Your task to perform on an android device: Open CNN.com Image 0: 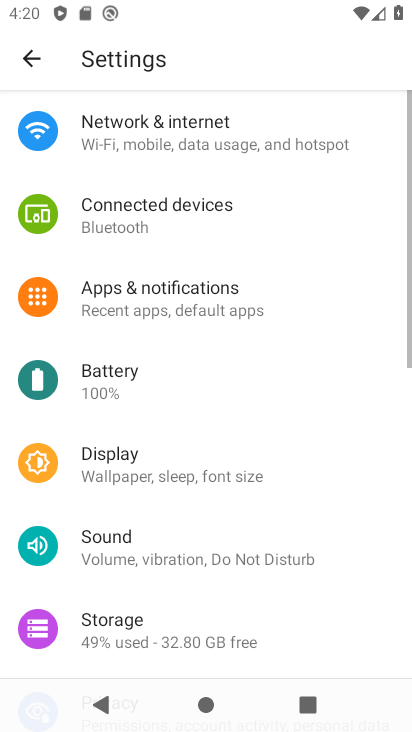
Step 0: press home button
Your task to perform on an android device: Open CNN.com Image 1: 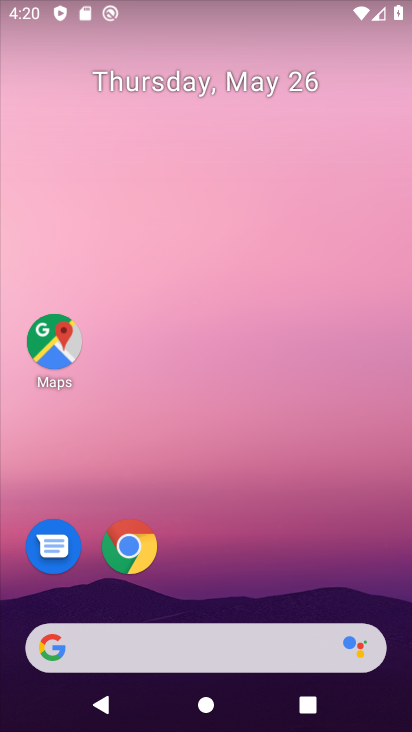
Step 1: click (139, 546)
Your task to perform on an android device: Open CNN.com Image 2: 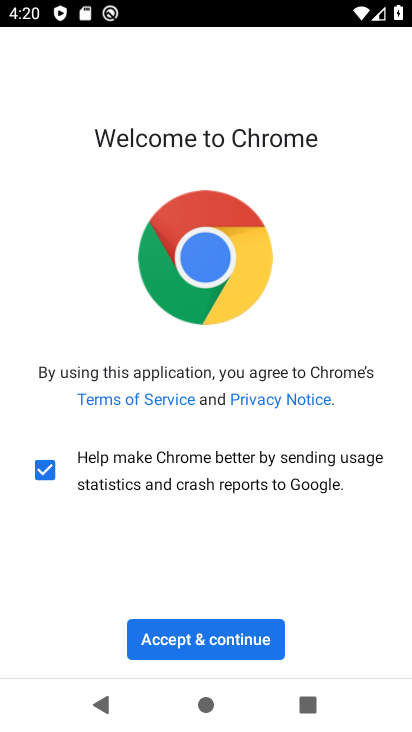
Step 2: click (236, 647)
Your task to perform on an android device: Open CNN.com Image 3: 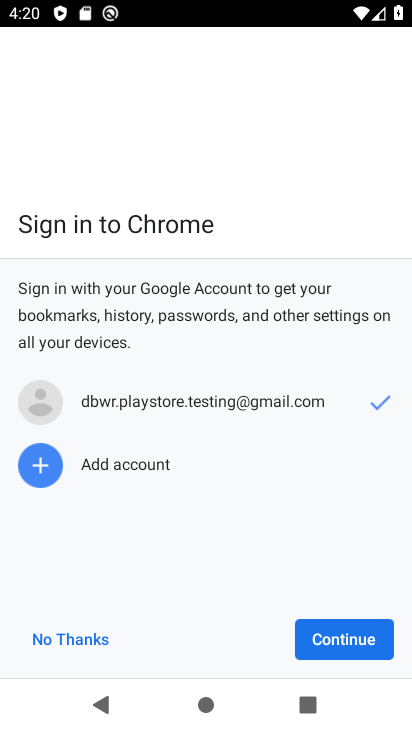
Step 3: click (325, 631)
Your task to perform on an android device: Open CNN.com Image 4: 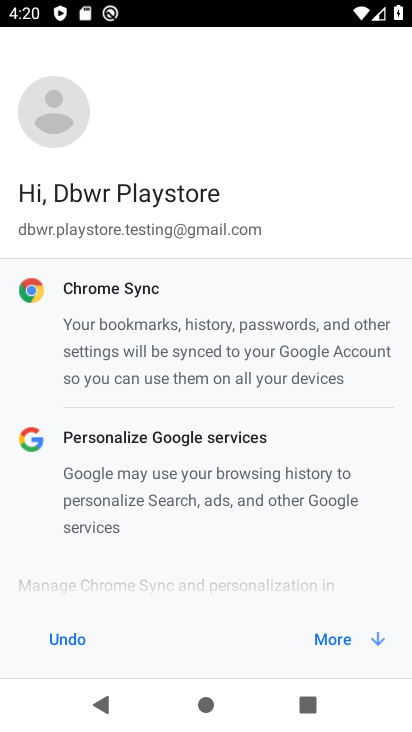
Step 4: click (352, 638)
Your task to perform on an android device: Open CNN.com Image 5: 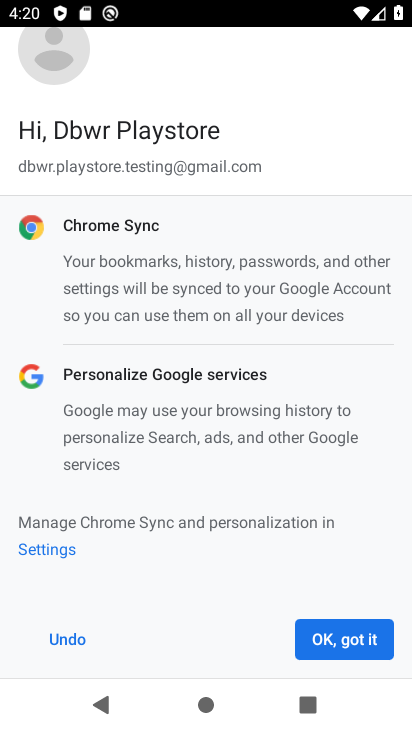
Step 5: click (352, 638)
Your task to perform on an android device: Open CNN.com Image 6: 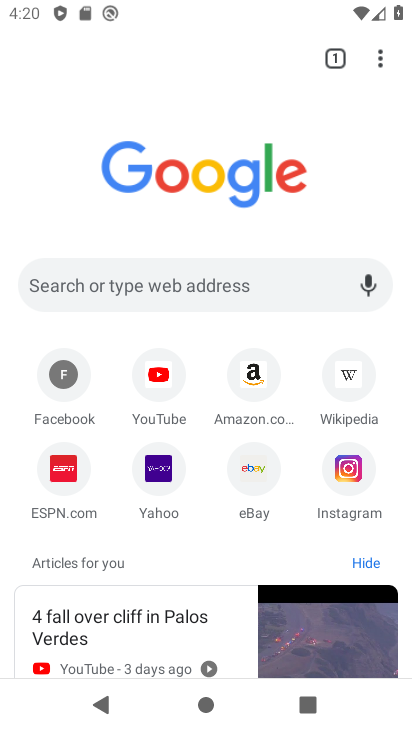
Step 6: click (226, 278)
Your task to perform on an android device: Open CNN.com Image 7: 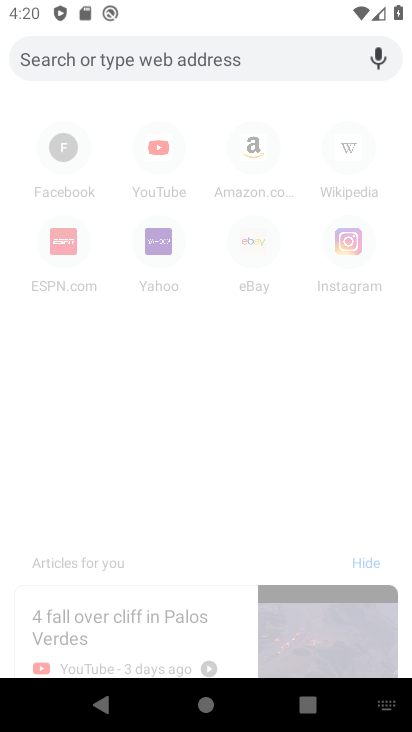
Step 7: type "cnn.com"
Your task to perform on an android device: Open CNN.com Image 8: 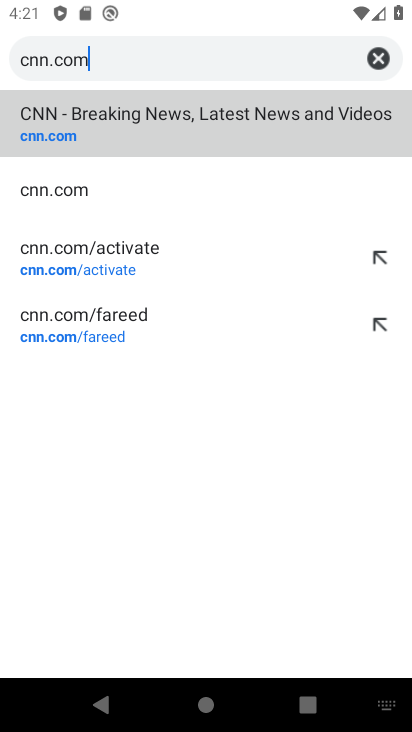
Step 8: click (57, 144)
Your task to perform on an android device: Open CNN.com Image 9: 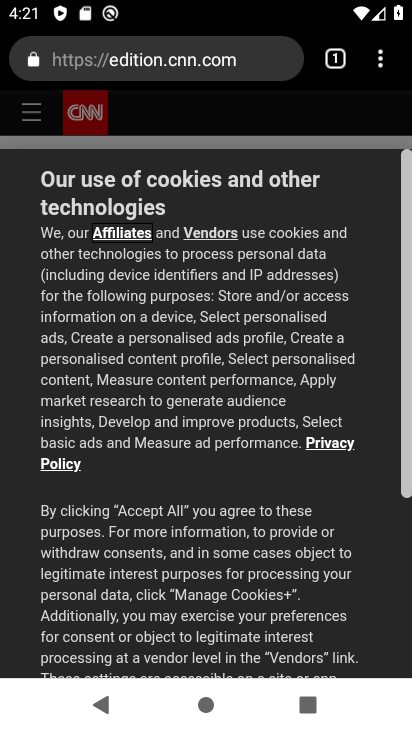
Step 9: task complete